Your task to perform on an android device: toggle javascript in the chrome app Image 0: 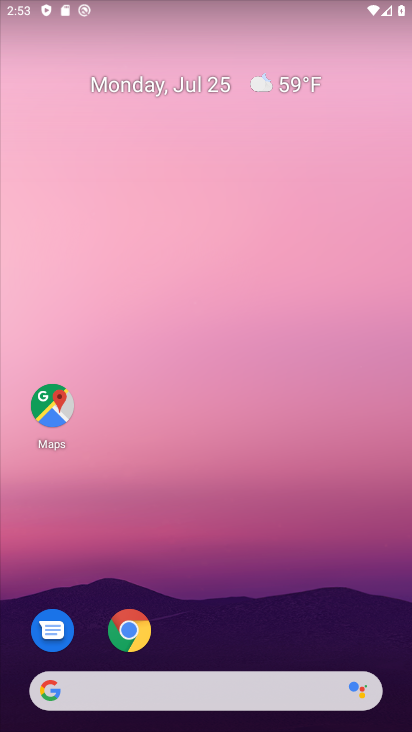
Step 0: click (139, 645)
Your task to perform on an android device: toggle javascript in the chrome app Image 1: 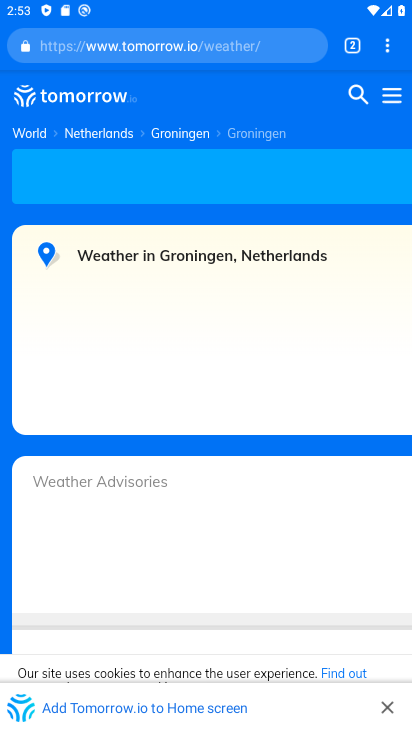
Step 1: click (384, 45)
Your task to perform on an android device: toggle javascript in the chrome app Image 2: 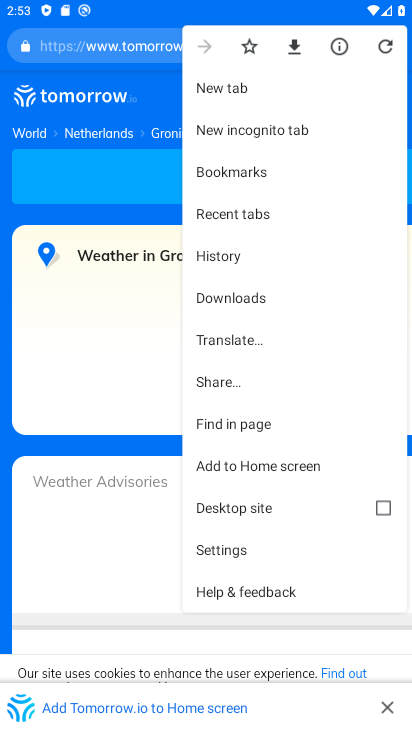
Step 2: click (212, 548)
Your task to perform on an android device: toggle javascript in the chrome app Image 3: 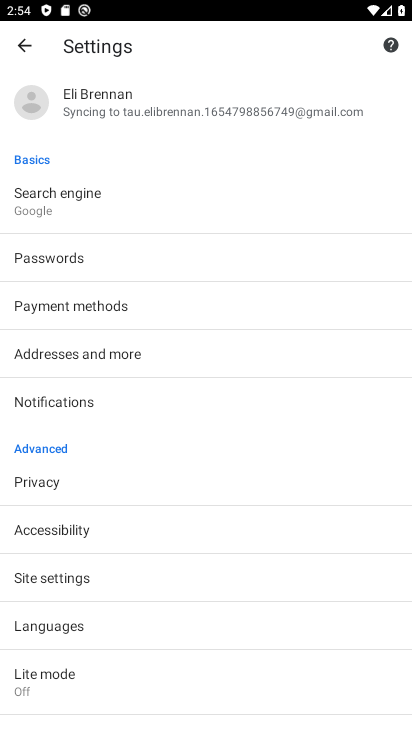
Step 3: click (66, 578)
Your task to perform on an android device: toggle javascript in the chrome app Image 4: 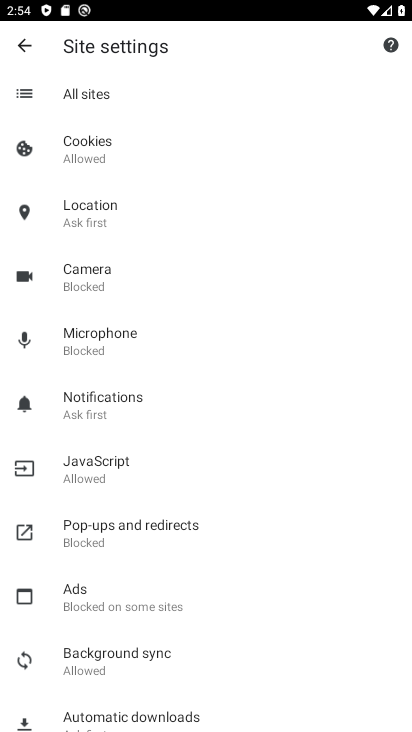
Step 4: click (92, 476)
Your task to perform on an android device: toggle javascript in the chrome app Image 5: 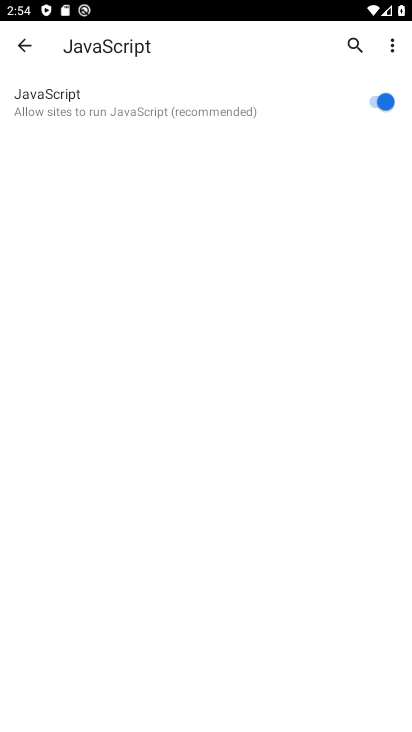
Step 5: click (371, 120)
Your task to perform on an android device: toggle javascript in the chrome app Image 6: 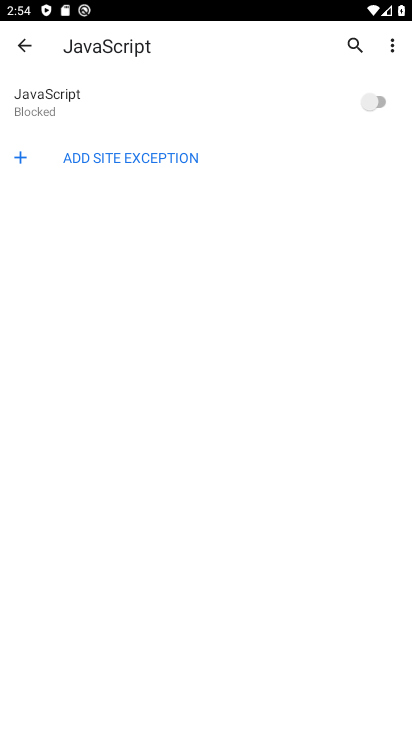
Step 6: task complete